Your task to perform on an android device: Show me productivity apps on the Play Store Image 0: 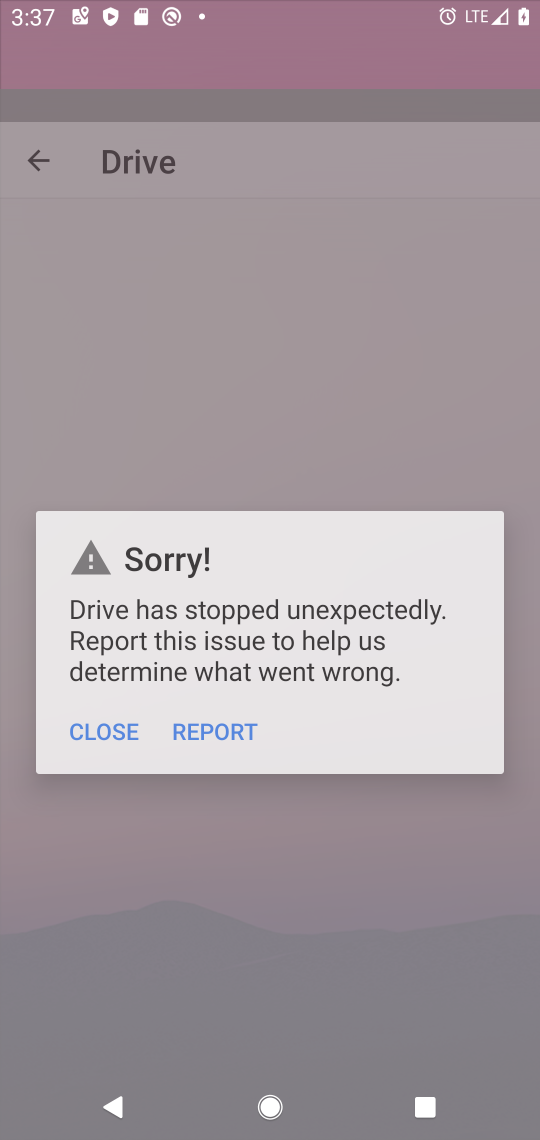
Step 0: press back button
Your task to perform on an android device: Show me productivity apps on the Play Store Image 1: 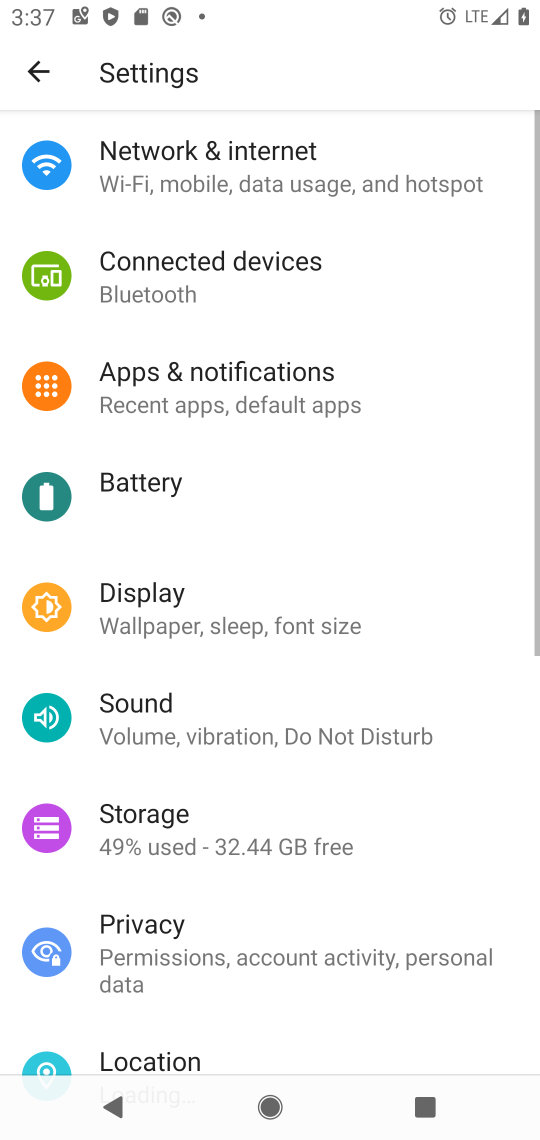
Step 1: drag from (266, 942) to (331, 47)
Your task to perform on an android device: Show me productivity apps on the Play Store Image 2: 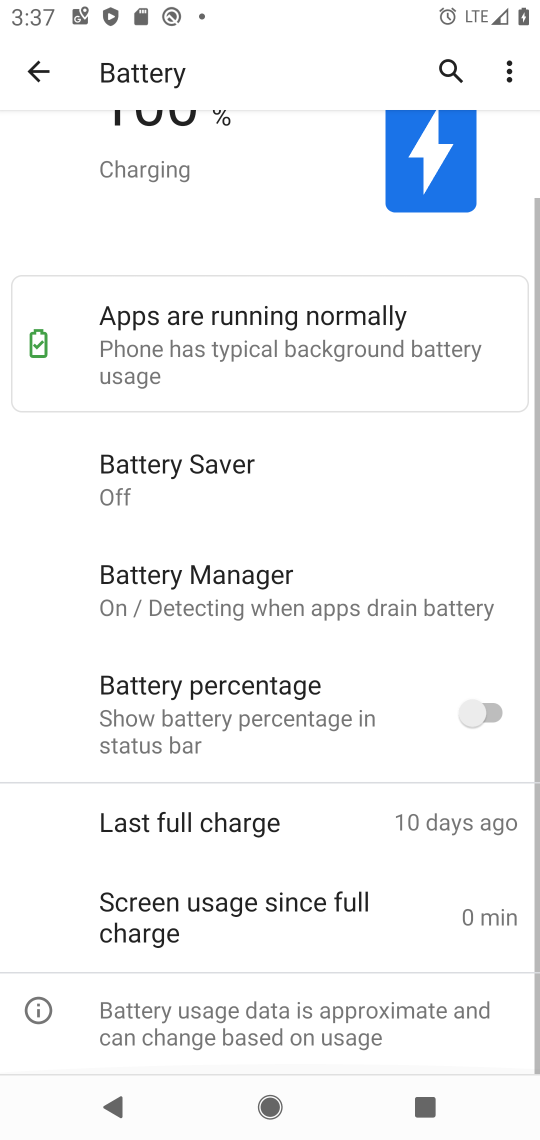
Step 2: press back button
Your task to perform on an android device: Show me productivity apps on the Play Store Image 3: 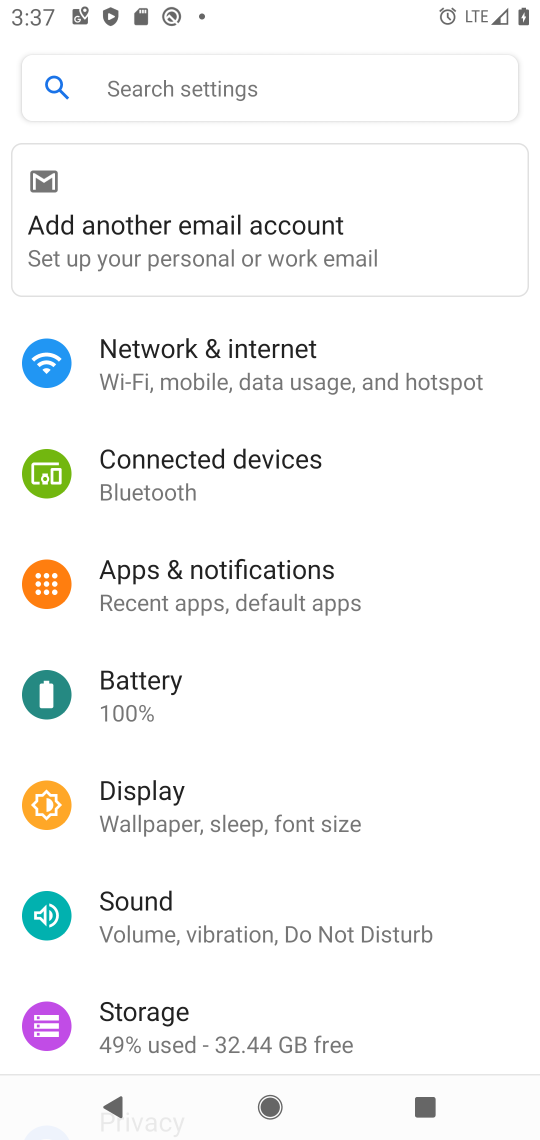
Step 3: press back button
Your task to perform on an android device: Show me productivity apps on the Play Store Image 4: 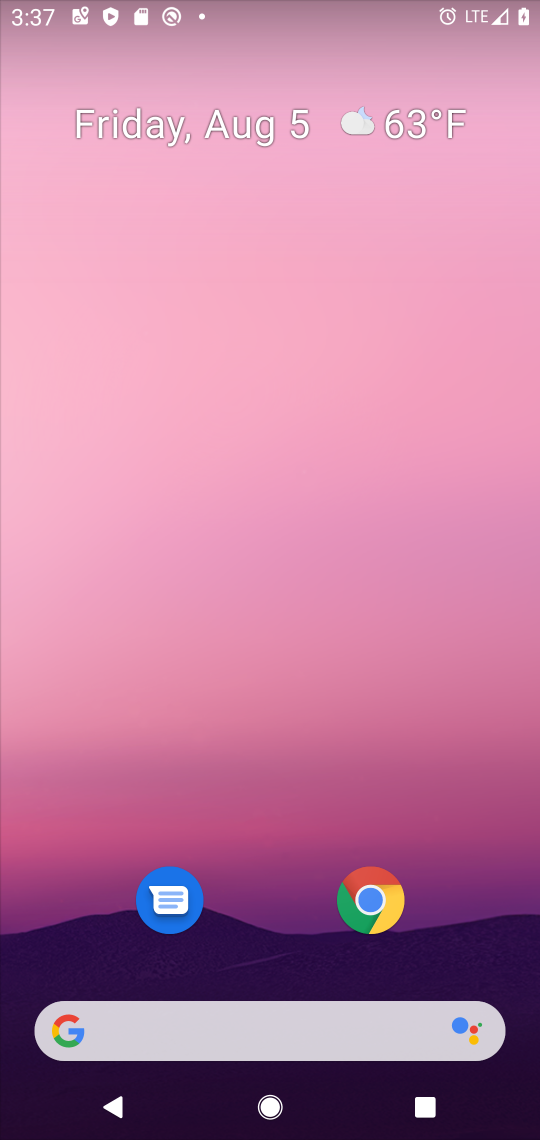
Step 4: drag from (243, 952) to (360, 9)
Your task to perform on an android device: Show me productivity apps on the Play Store Image 5: 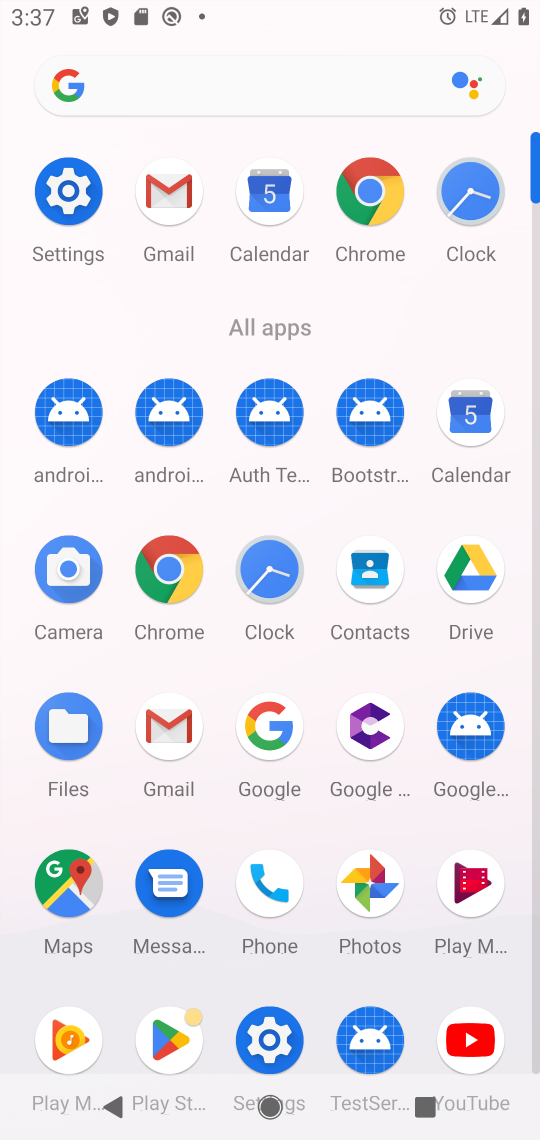
Step 5: click (168, 1042)
Your task to perform on an android device: Show me productivity apps on the Play Store Image 6: 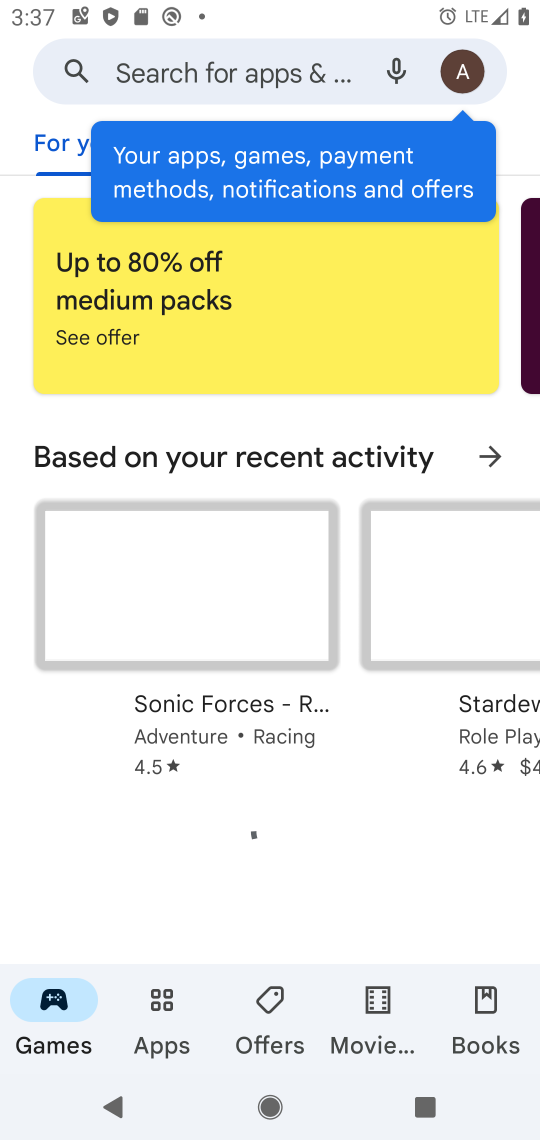
Step 6: click (149, 1019)
Your task to perform on an android device: Show me productivity apps on the Play Store Image 7: 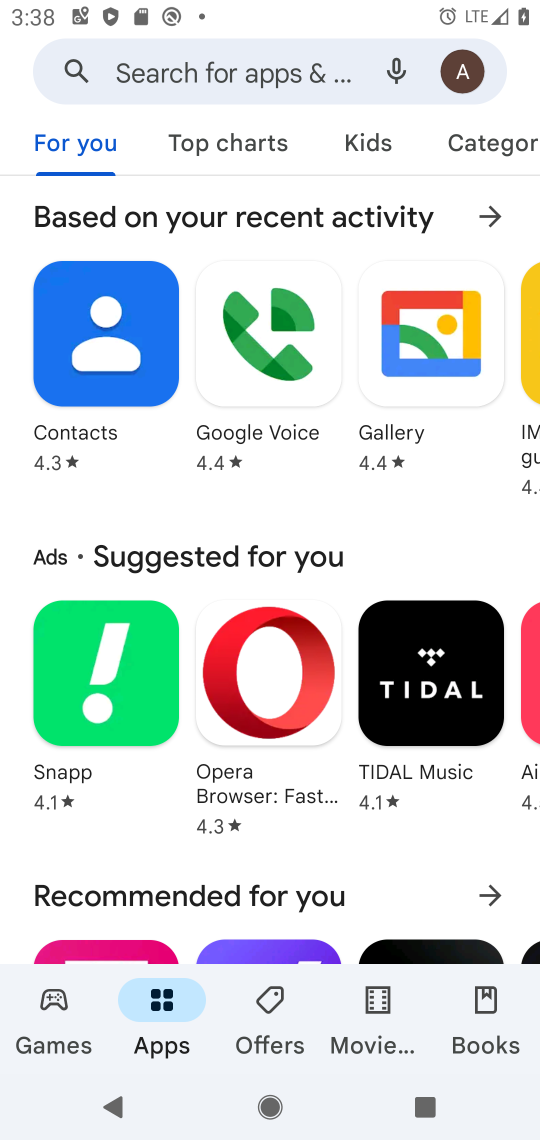
Step 7: drag from (233, 903) to (325, 204)
Your task to perform on an android device: Show me productivity apps on the Play Store Image 8: 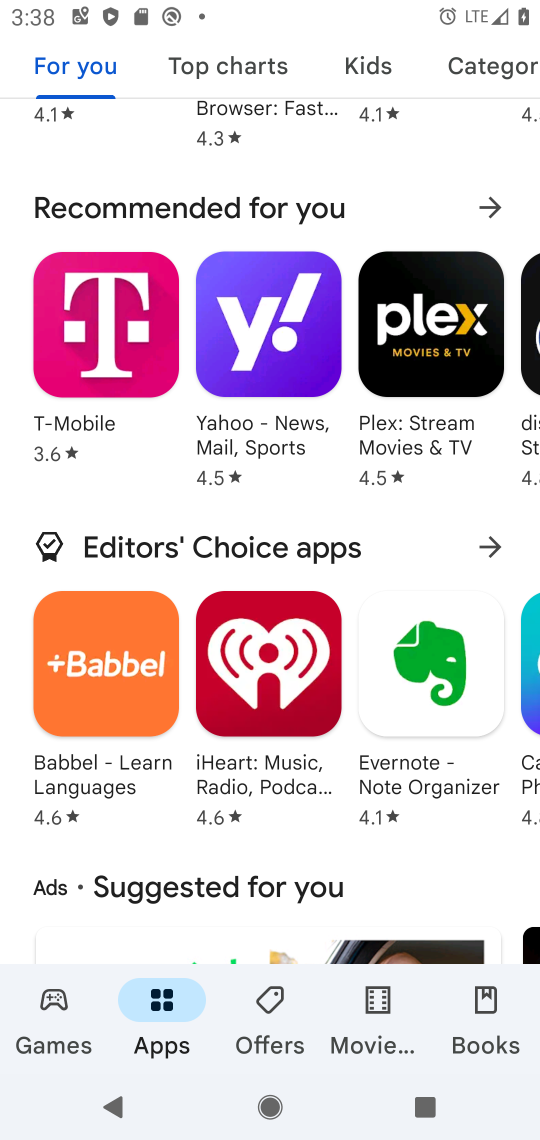
Step 8: drag from (228, 775) to (383, 55)
Your task to perform on an android device: Show me productivity apps on the Play Store Image 9: 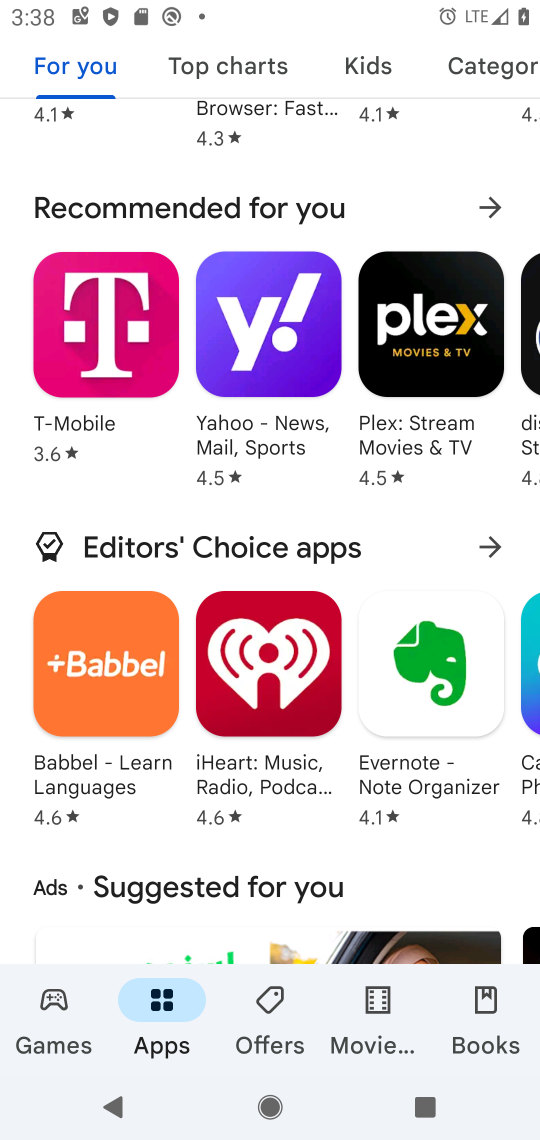
Step 9: drag from (202, 850) to (400, 158)
Your task to perform on an android device: Show me productivity apps on the Play Store Image 10: 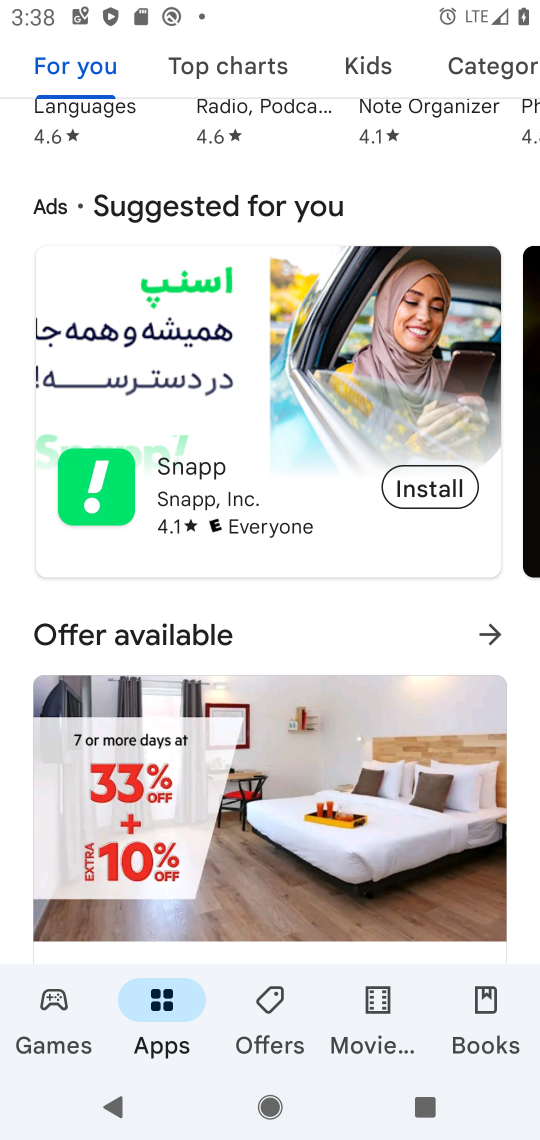
Step 10: drag from (259, 645) to (370, 2)
Your task to perform on an android device: Show me productivity apps on the Play Store Image 11: 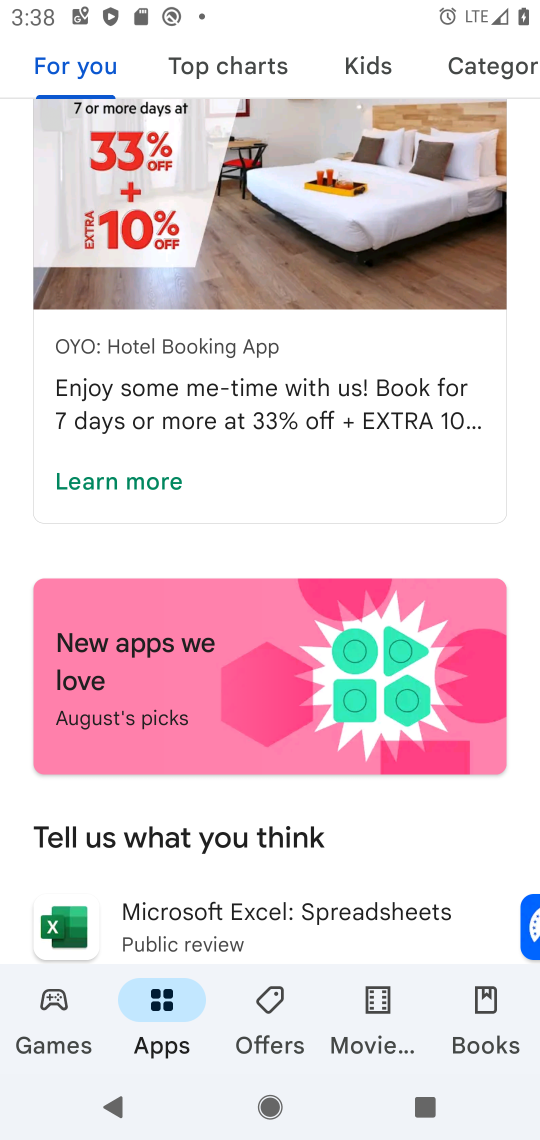
Step 11: drag from (183, 821) to (386, 50)
Your task to perform on an android device: Show me productivity apps on the Play Store Image 12: 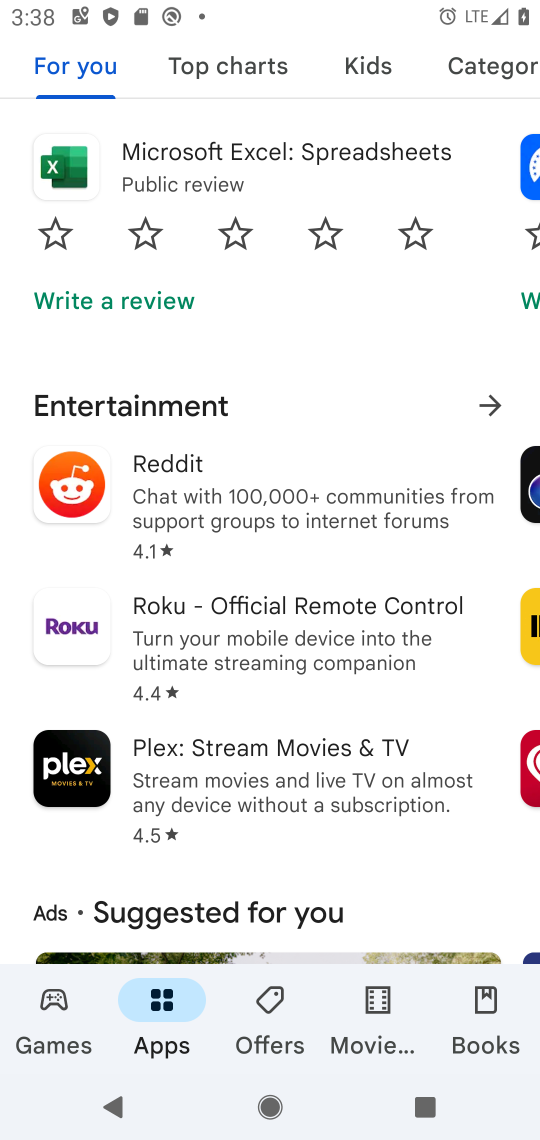
Step 12: drag from (234, 724) to (386, 188)
Your task to perform on an android device: Show me productivity apps on the Play Store Image 13: 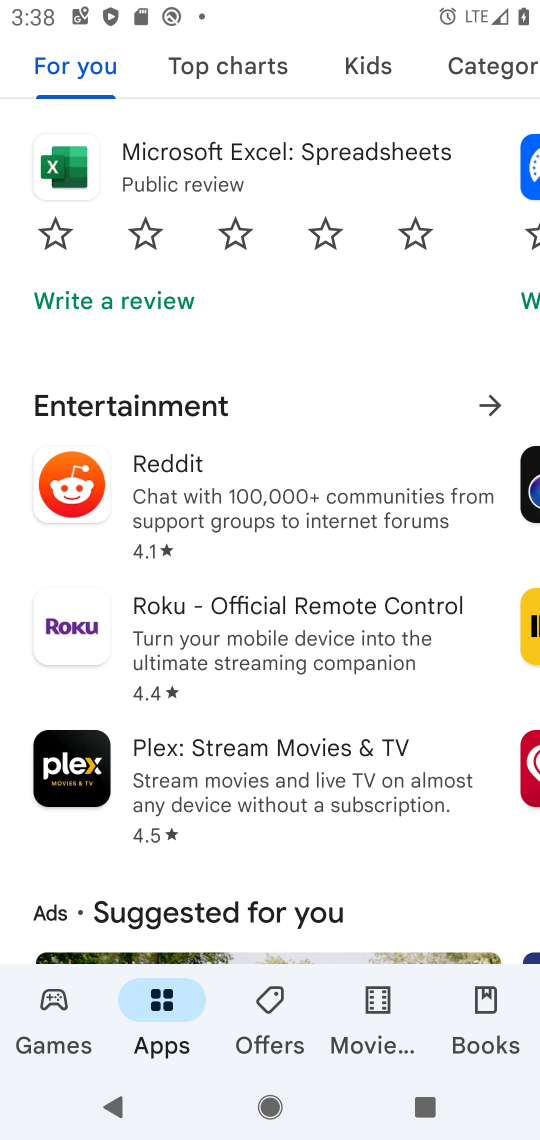
Step 13: drag from (14, 939) to (27, 260)
Your task to perform on an android device: Show me productivity apps on the Play Store Image 14: 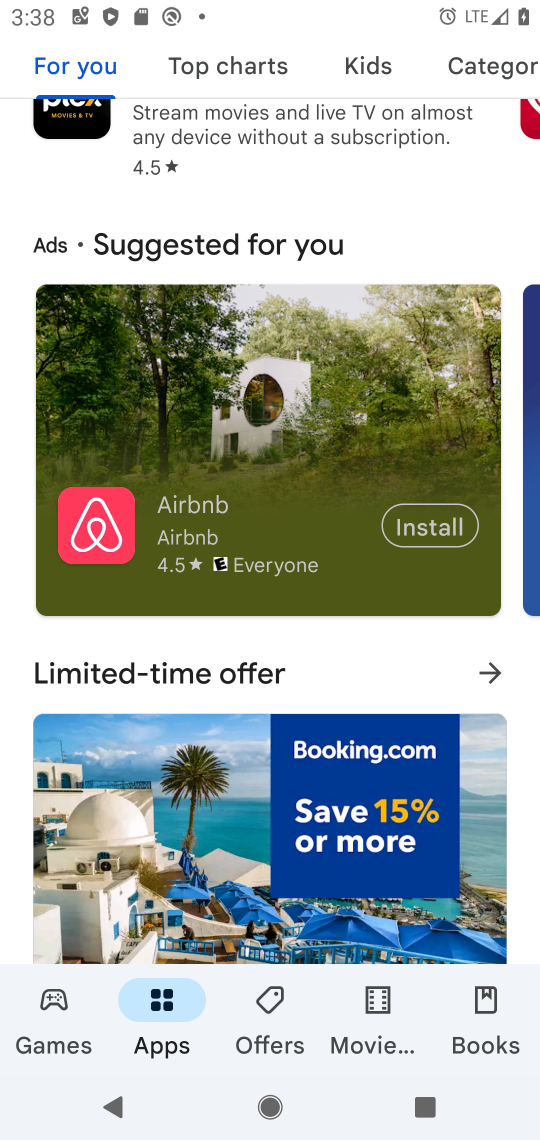
Step 14: drag from (12, 895) to (13, 111)
Your task to perform on an android device: Show me productivity apps on the Play Store Image 15: 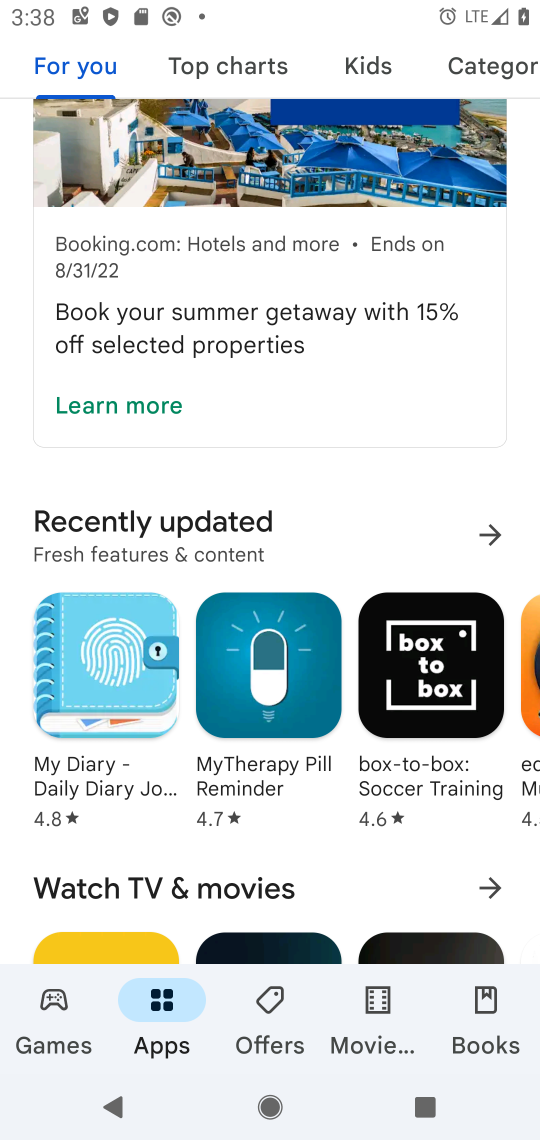
Step 15: drag from (8, 903) to (39, 84)
Your task to perform on an android device: Show me productivity apps on the Play Store Image 16: 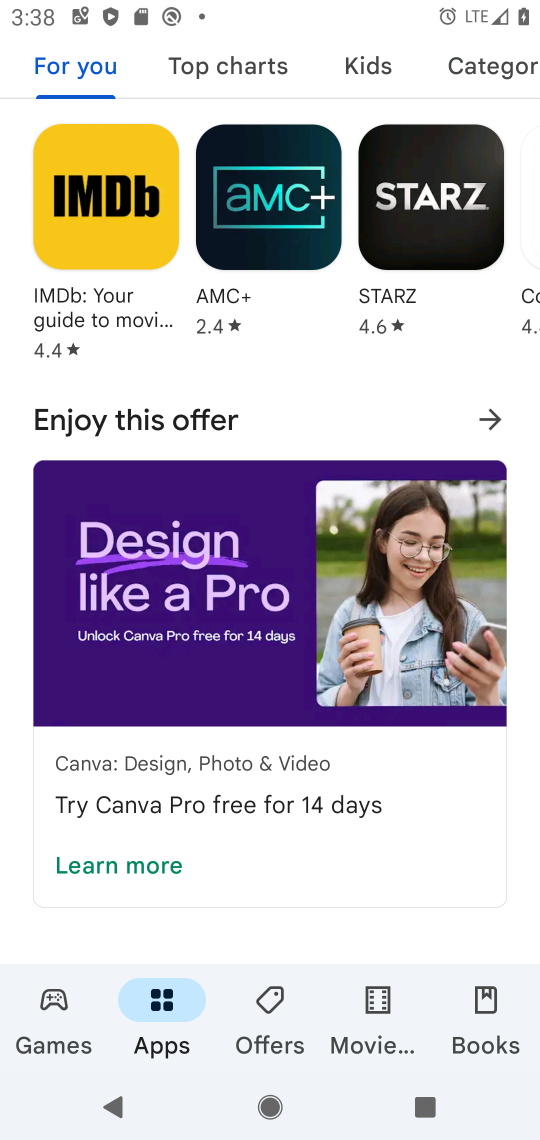
Step 16: drag from (25, 902) to (22, 83)
Your task to perform on an android device: Show me productivity apps on the Play Store Image 17: 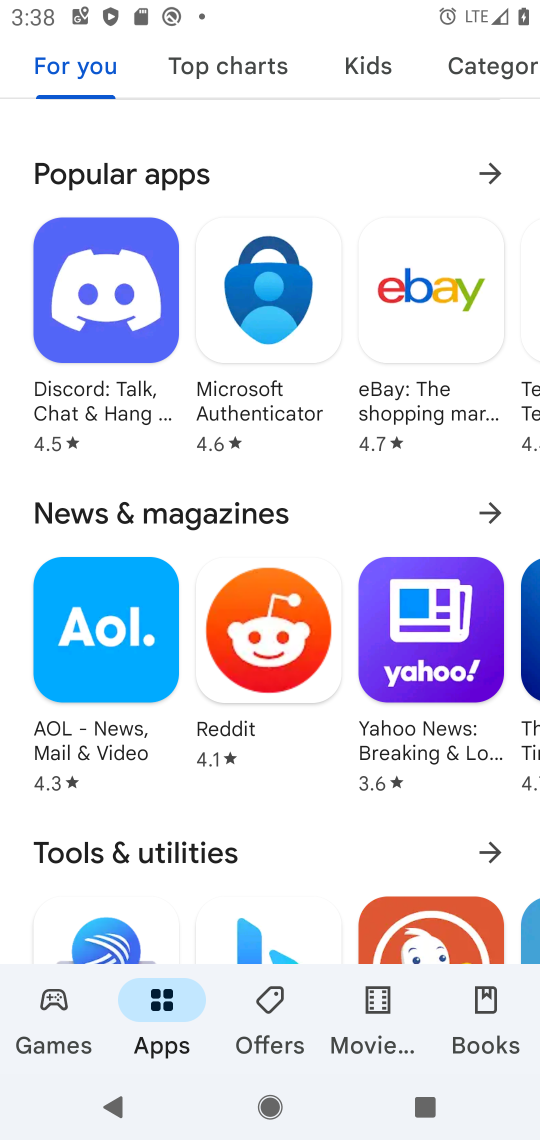
Step 17: drag from (18, 898) to (20, 194)
Your task to perform on an android device: Show me productivity apps on the Play Store Image 18: 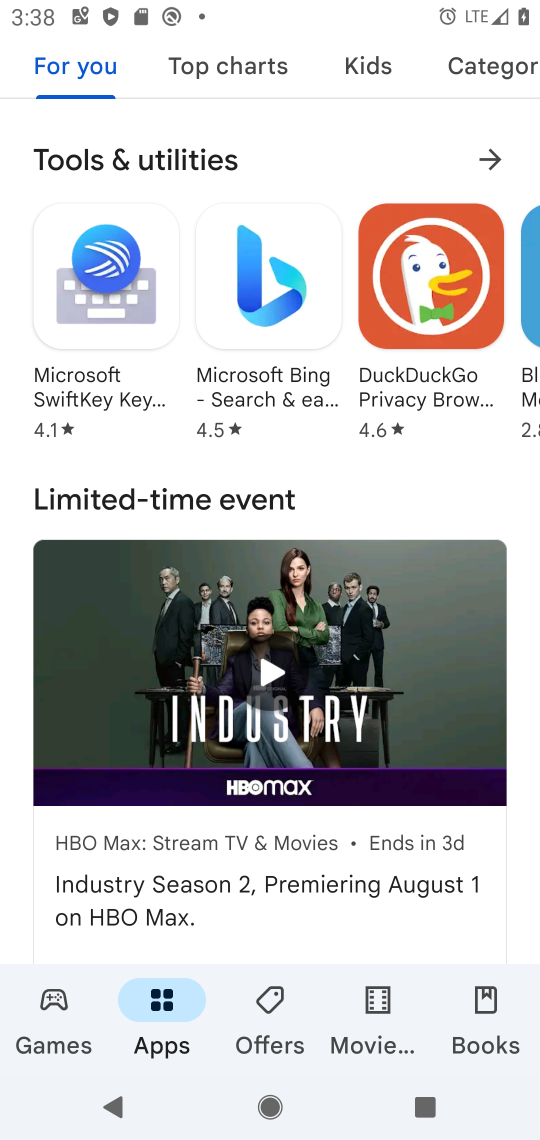
Step 18: drag from (29, 809) to (17, 151)
Your task to perform on an android device: Show me productivity apps on the Play Store Image 19: 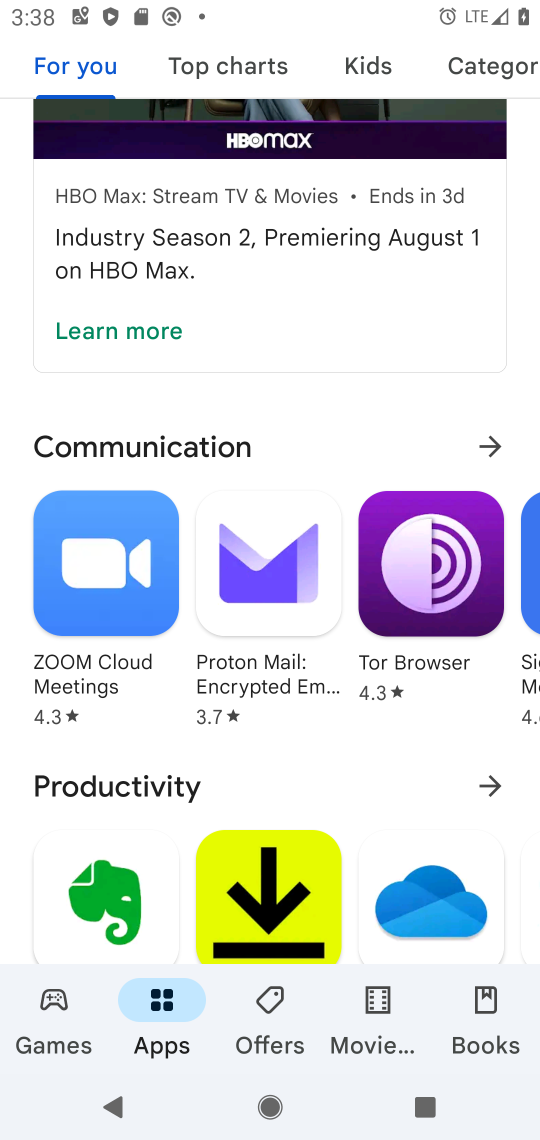
Step 19: click (485, 788)
Your task to perform on an android device: Show me productivity apps on the Play Store Image 20: 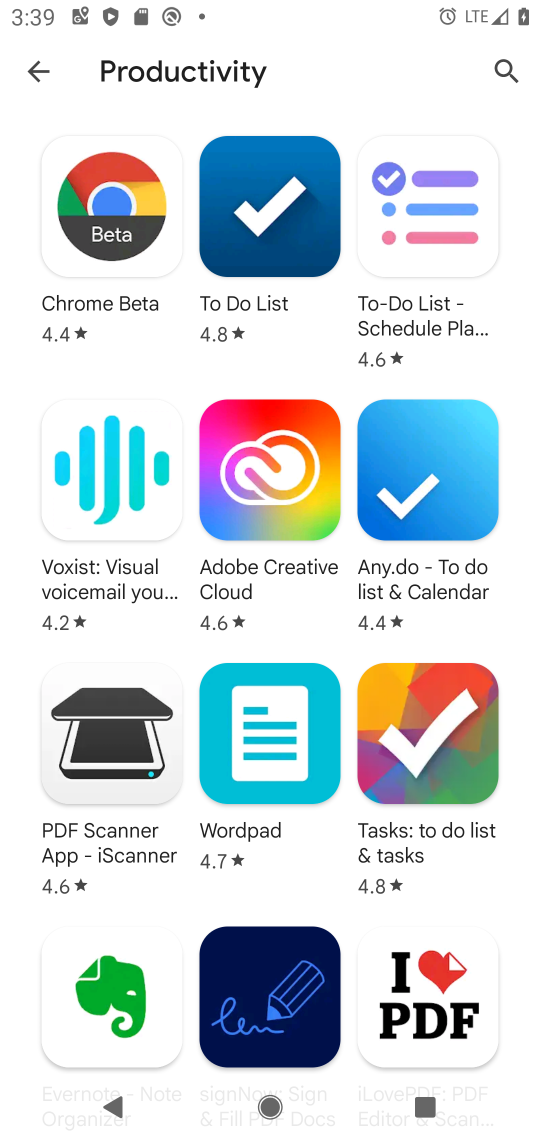
Step 20: task complete